Your task to perform on an android device: Open the calendar app, open the side menu, and click the "Day" option Image 0: 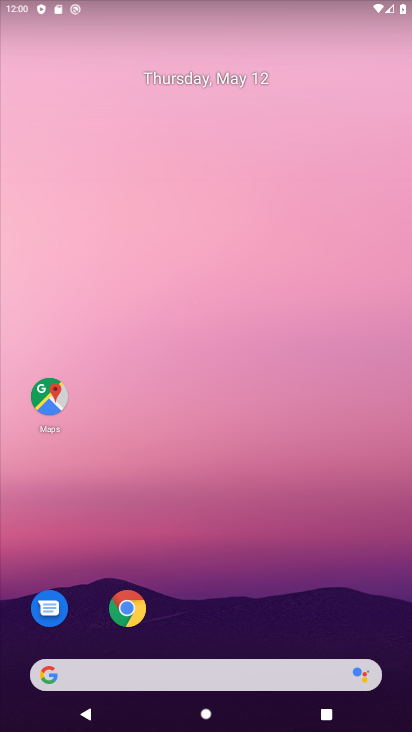
Step 0: drag from (347, 643) to (393, 9)
Your task to perform on an android device: Open the calendar app, open the side menu, and click the "Day" option Image 1: 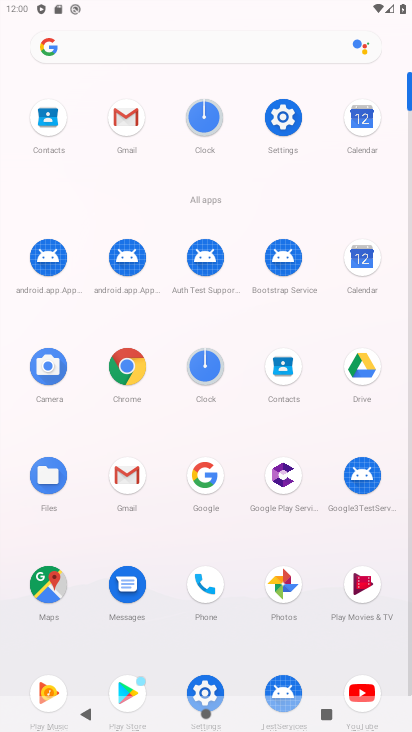
Step 1: click (362, 119)
Your task to perform on an android device: Open the calendar app, open the side menu, and click the "Day" option Image 2: 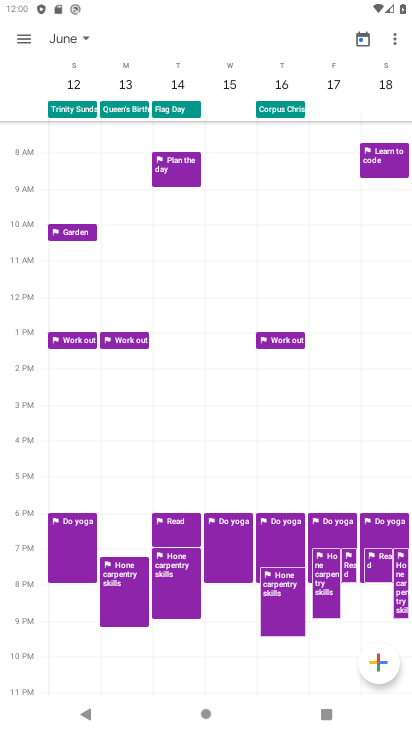
Step 2: click (22, 41)
Your task to perform on an android device: Open the calendar app, open the side menu, and click the "Day" option Image 3: 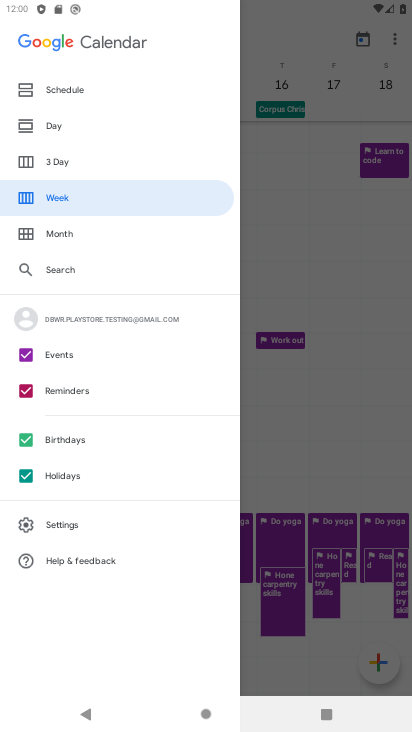
Step 3: click (69, 134)
Your task to perform on an android device: Open the calendar app, open the side menu, and click the "Day" option Image 4: 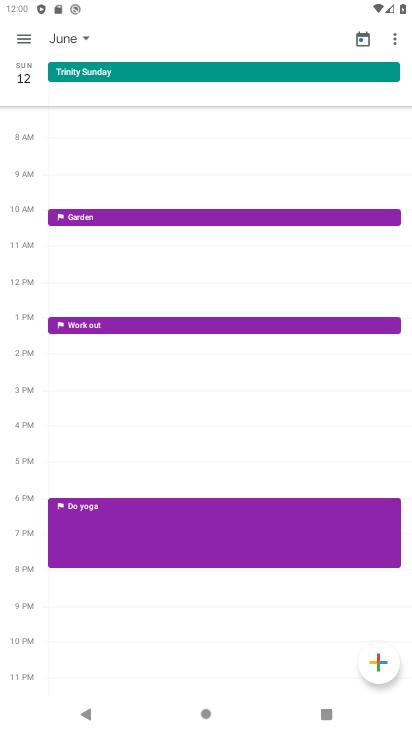
Step 4: task complete